Your task to perform on an android device: Go to Google maps Image 0: 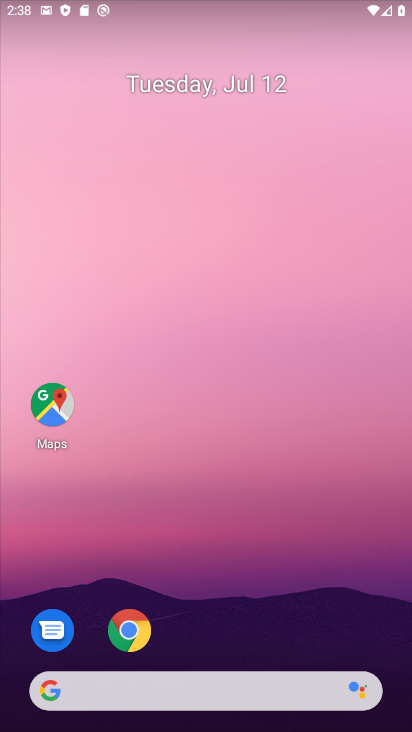
Step 0: drag from (229, 697) to (224, 84)
Your task to perform on an android device: Go to Google maps Image 1: 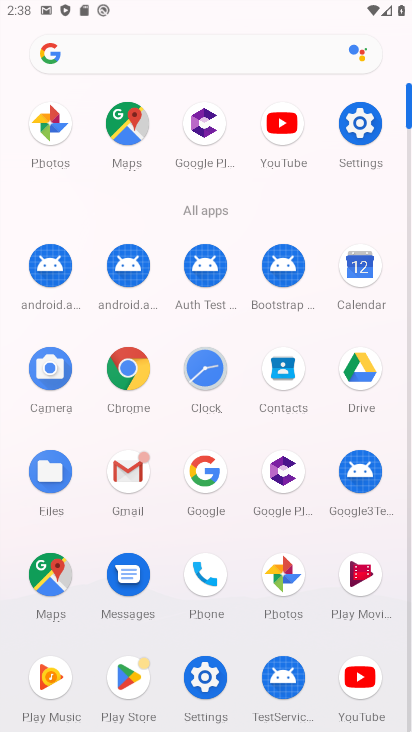
Step 1: click (51, 576)
Your task to perform on an android device: Go to Google maps Image 2: 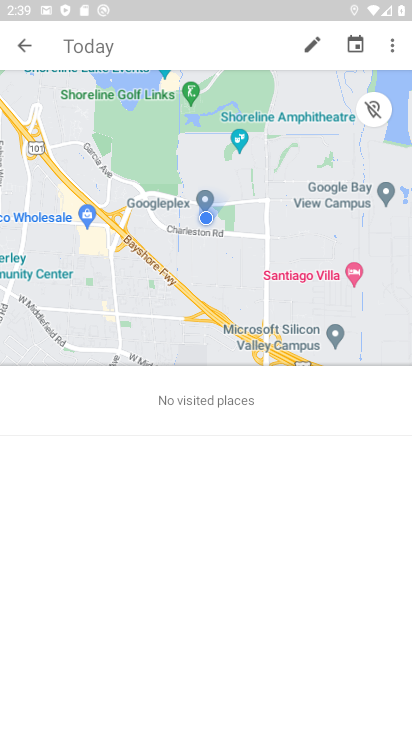
Step 2: task complete